Your task to perform on an android device: turn off picture-in-picture Image 0: 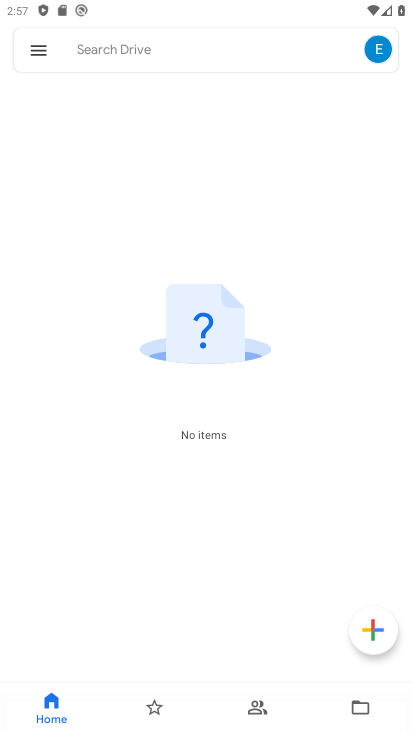
Step 0: press back button
Your task to perform on an android device: turn off picture-in-picture Image 1: 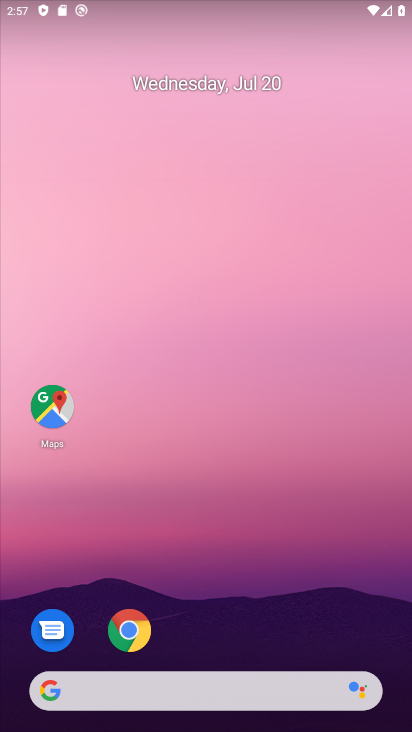
Step 1: drag from (245, 651) to (166, 94)
Your task to perform on an android device: turn off picture-in-picture Image 2: 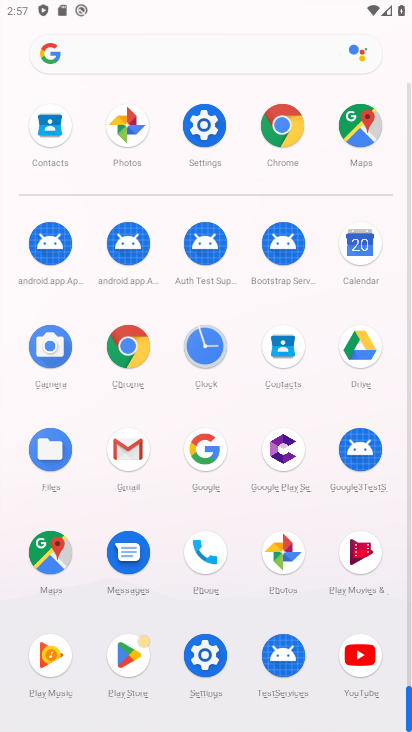
Step 2: click (121, 330)
Your task to perform on an android device: turn off picture-in-picture Image 3: 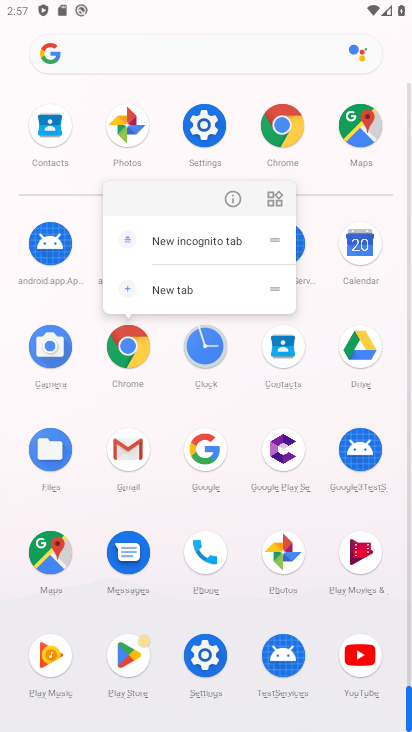
Step 3: click (231, 198)
Your task to perform on an android device: turn off picture-in-picture Image 4: 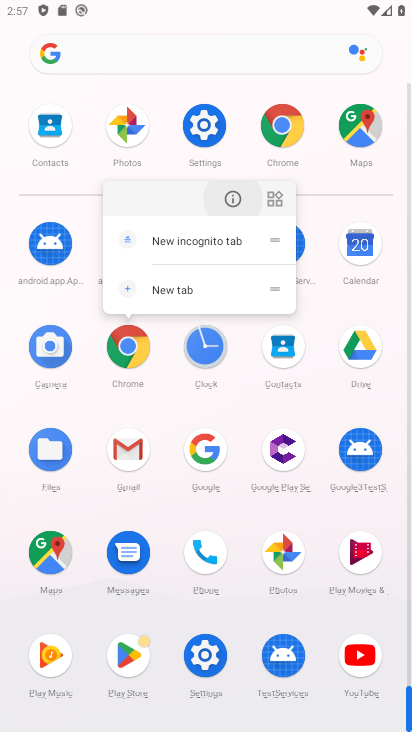
Step 4: click (232, 197)
Your task to perform on an android device: turn off picture-in-picture Image 5: 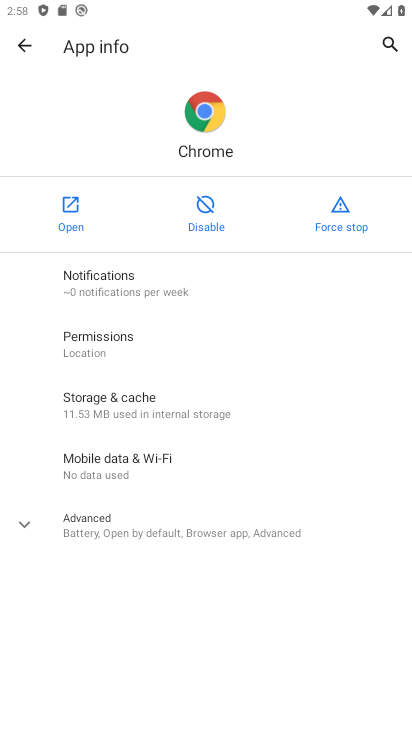
Step 5: click (105, 516)
Your task to perform on an android device: turn off picture-in-picture Image 6: 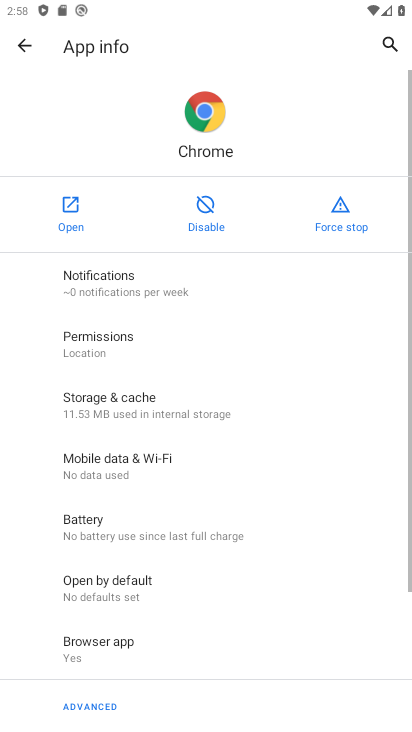
Step 6: drag from (138, 578) to (135, 319)
Your task to perform on an android device: turn off picture-in-picture Image 7: 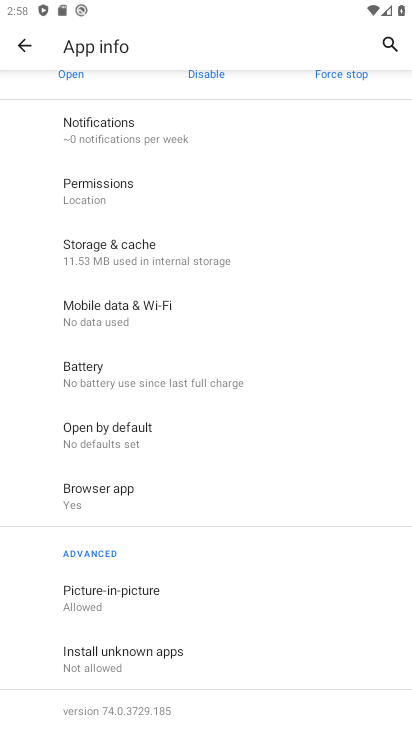
Step 7: drag from (110, 599) to (108, 337)
Your task to perform on an android device: turn off picture-in-picture Image 8: 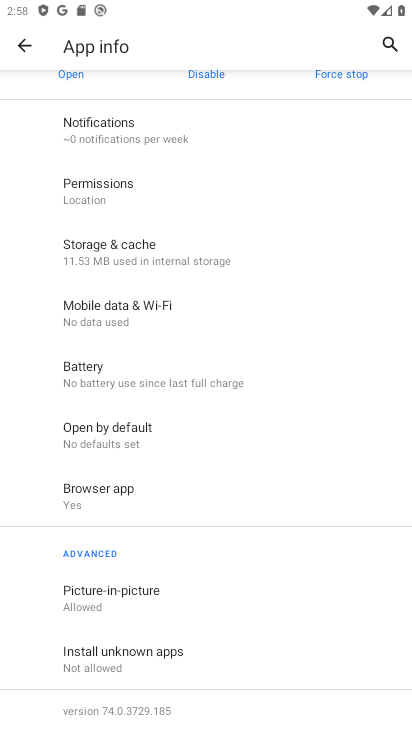
Step 8: click (105, 594)
Your task to perform on an android device: turn off picture-in-picture Image 9: 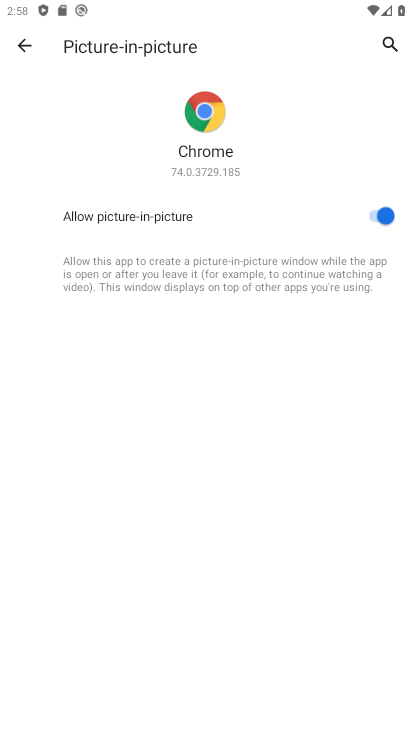
Step 9: click (379, 223)
Your task to perform on an android device: turn off picture-in-picture Image 10: 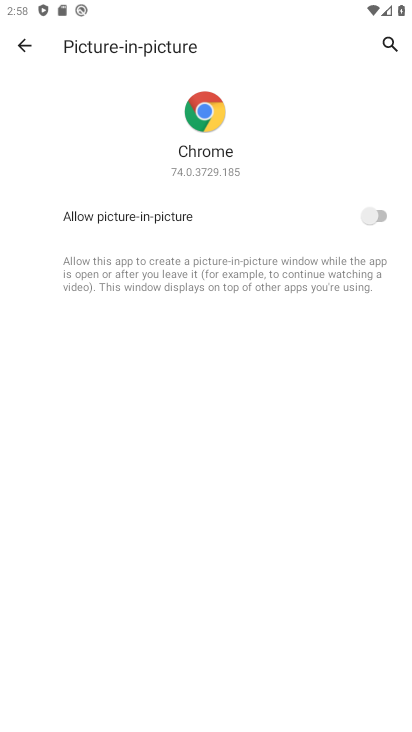
Step 10: task complete